Your task to perform on an android device: Open Yahoo.com Image 0: 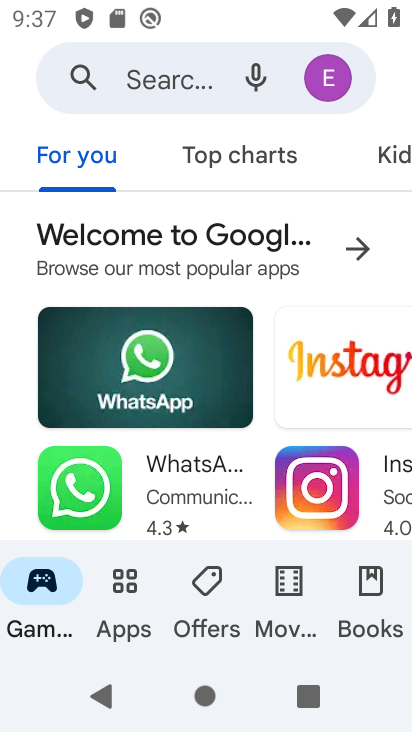
Step 0: press back button
Your task to perform on an android device: Open Yahoo.com Image 1: 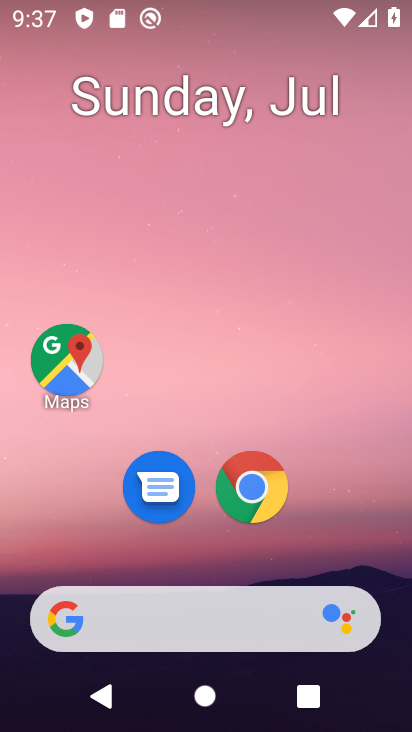
Step 1: click (248, 504)
Your task to perform on an android device: Open Yahoo.com Image 2: 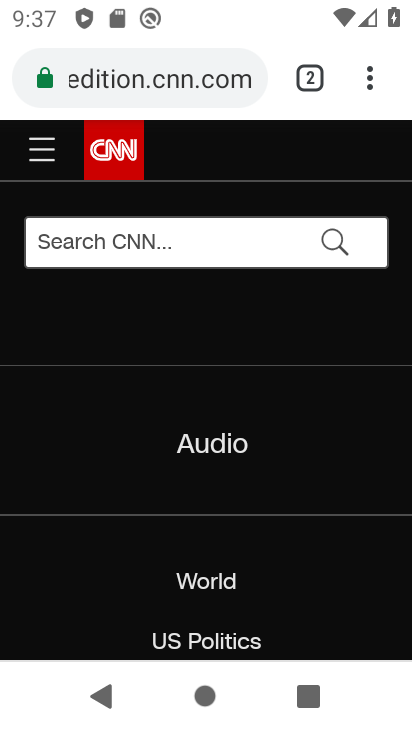
Step 2: click (317, 65)
Your task to perform on an android device: Open Yahoo.com Image 3: 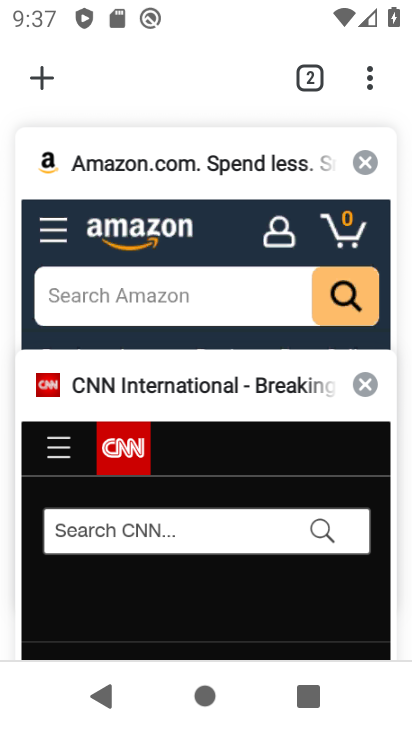
Step 3: click (31, 73)
Your task to perform on an android device: Open Yahoo.com Image 4: 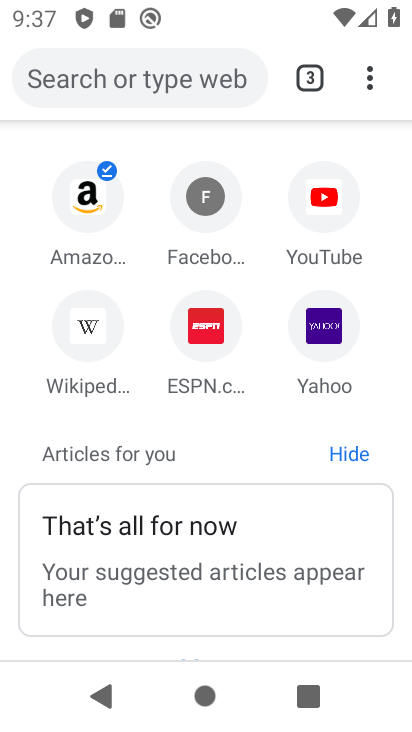
Step 4: click (109, 88)
Your task to perform on an android device: Open Yahoo.com Image 5: 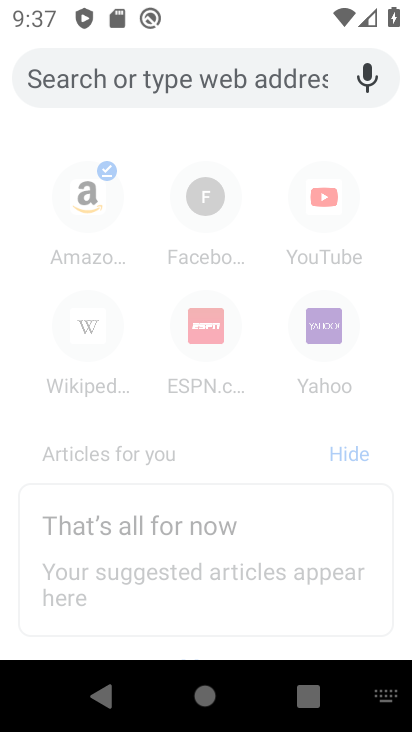
Step 5: type "y"
Your task to perform on an android device: Open Yahoo.com Image 6: 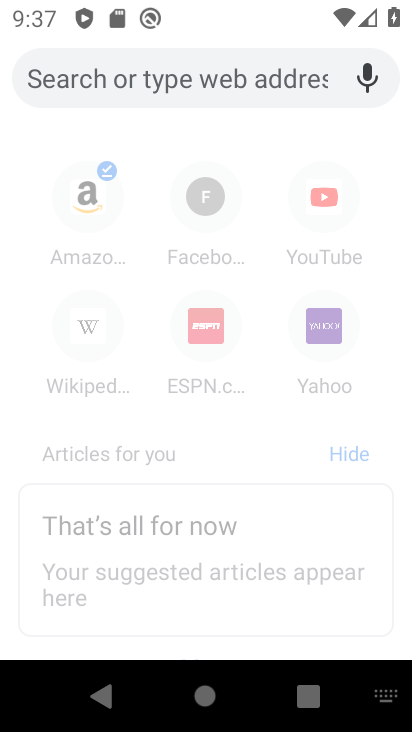
Step 6: click (317, 417)
Your task to perform on an android device: Open Yahoo.com Image 7: 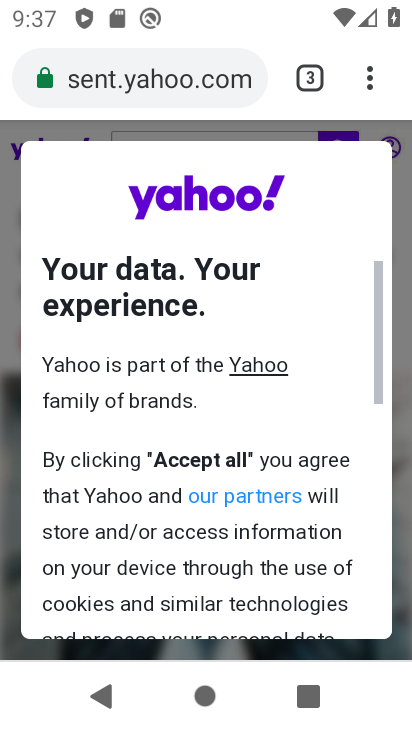
Step 7: task complete